Your task to perform on an android device: Open Google Image 0: 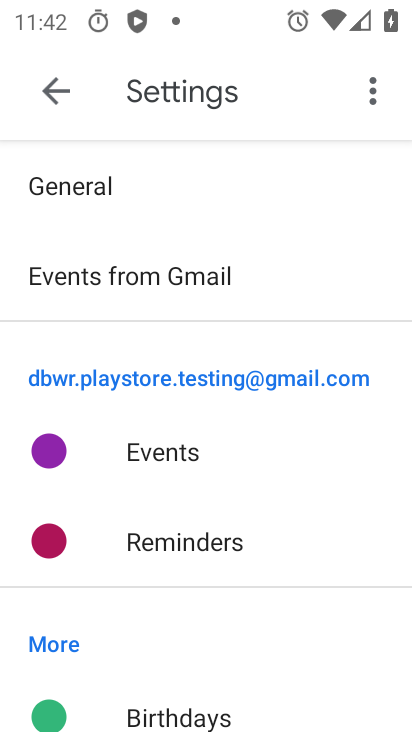
Step 0: press back button
Your task to perform on an android device: Open Google Image 1: 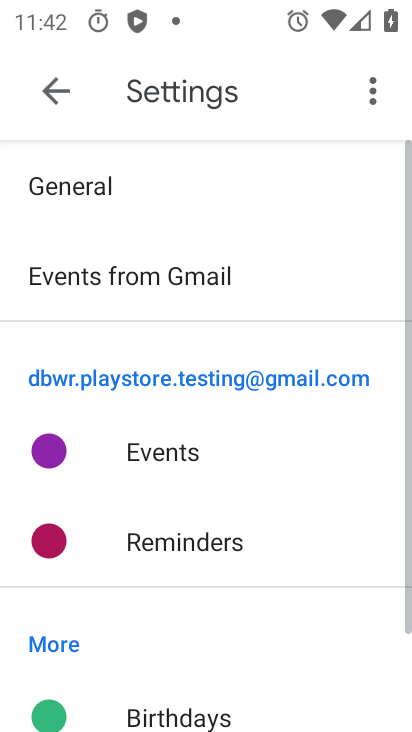
Step 1: click (19, 97)
Your task to perform on an android device: Open Google Image 2: 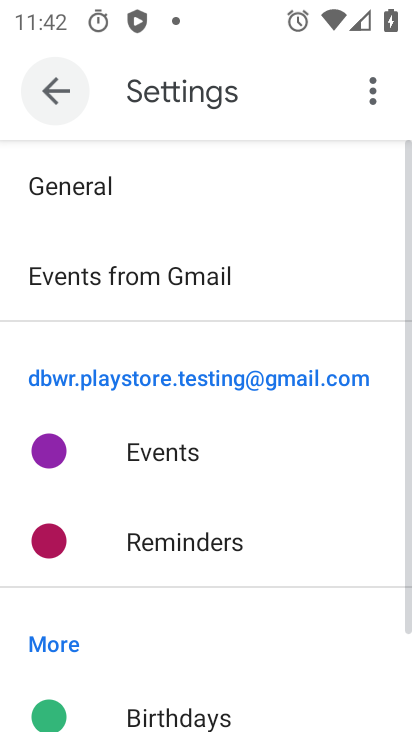
Step 2: click (37, 92)
Your task to perform on an android device: Open Google Image 3: 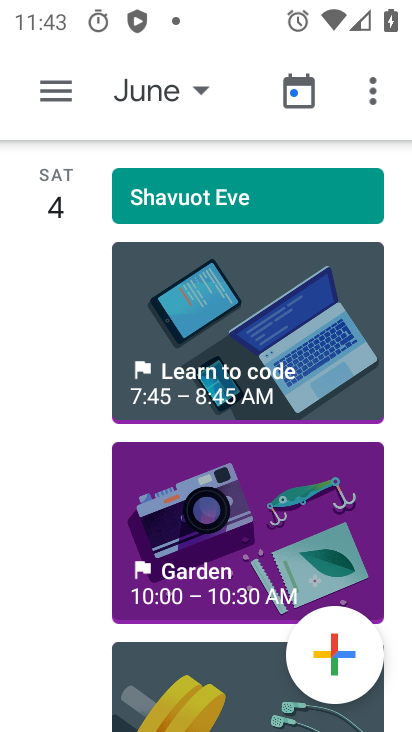
Step 3: press home button
Your task to perform on an android device: Open Google Image 4: 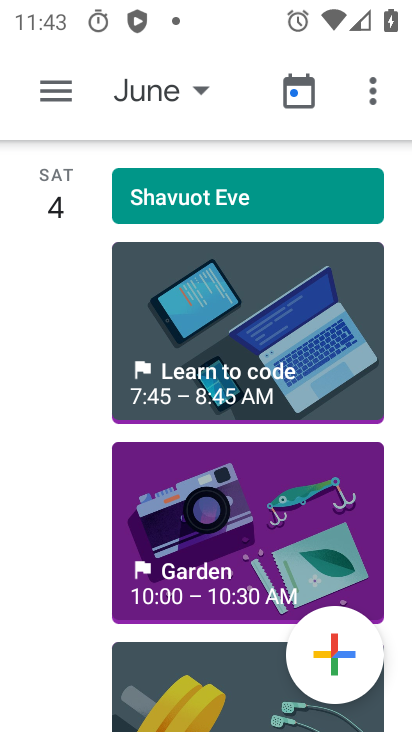
Step 4: press home button
Your task to perform on an android device: Open Google Image 5: 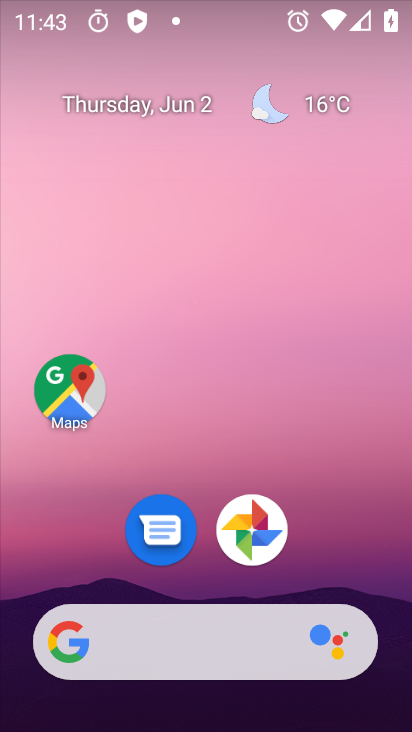
Step 5: press back button
Your task to perform on an android device: Open Google Image 6: 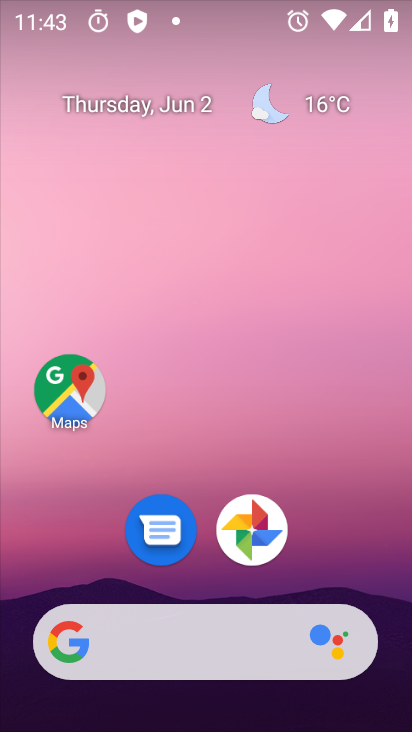
Step 6: drag from (213, 673) to (166, 78)
Your task to perform on an android device: Open Google Image 7: 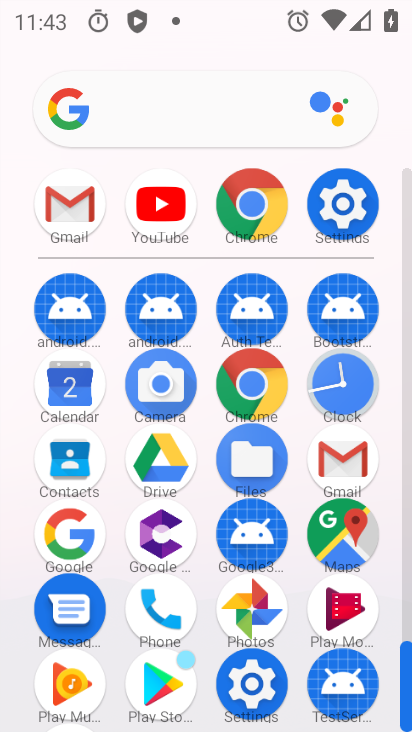
Step 7: click (80, 535)
Your task to perform on an android device: Open Google Image 8: 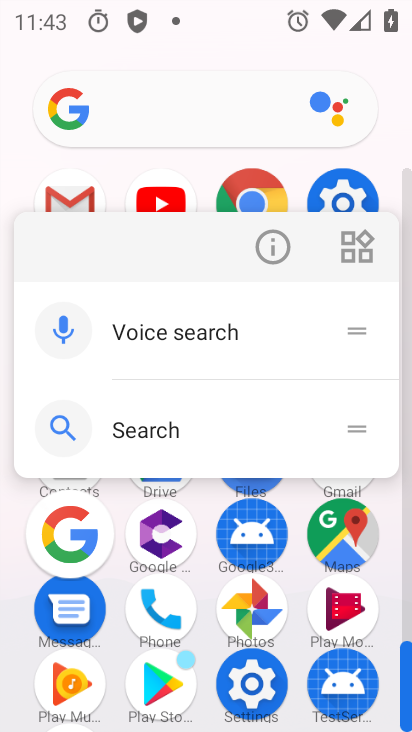
Step 8: click (80, 535)
Your task to perform on an android device: Open Google Image 9: 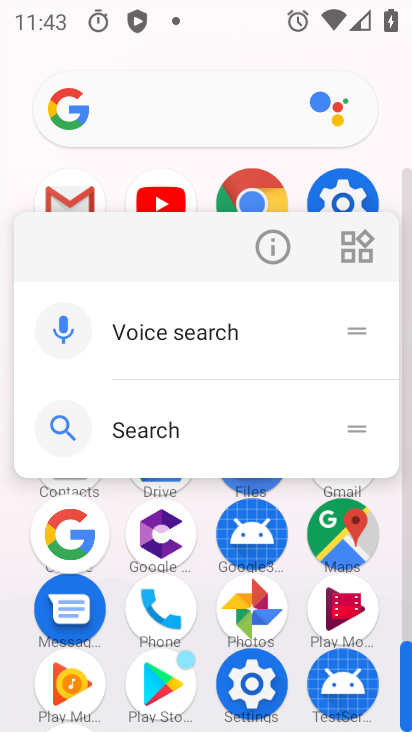
Step 9: click (77, 535)
Your task to perform on an android device: Open Google Image 10: 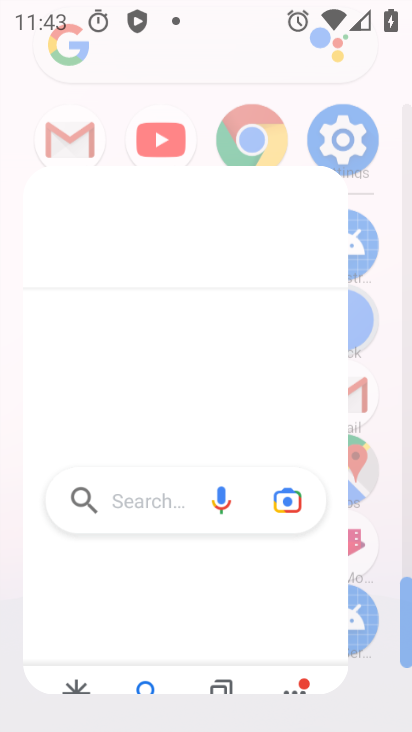
Step 10: click (68, 513)
Your task to perform on an android device: Open Google Image 11: 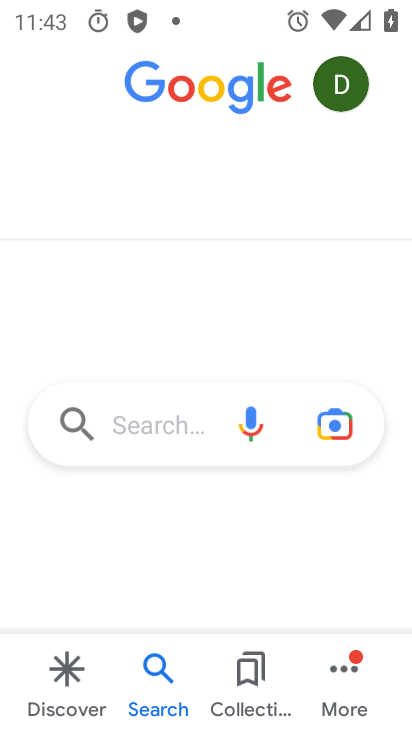
Step 11: click (68, 512)
Your task to perform on an android device: Open Google Image 12: 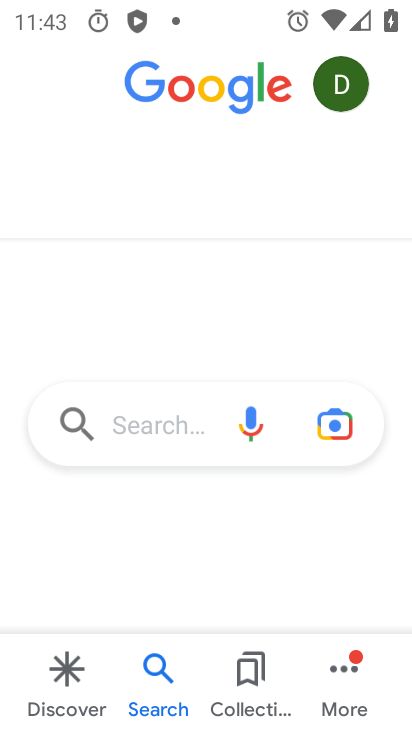
Step 12: task complete